Your task to perform on an android device: open app "Firefox Browser" (install if not already installed), go to login, and select forgot password Image 0: 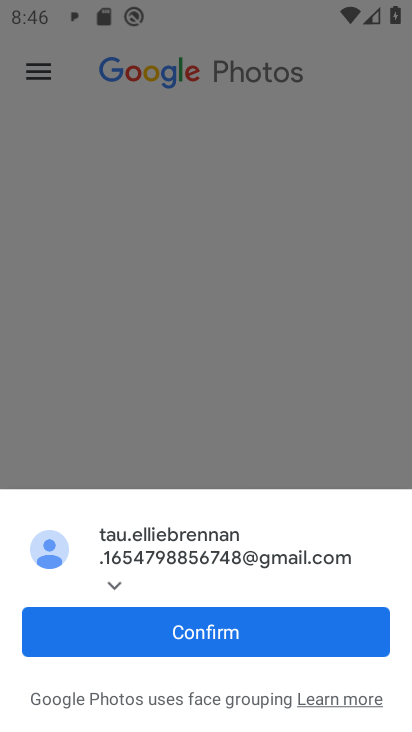
Step 0: press home button
Your task to perform on an android device: open app "Firefox Browser" (install if not already installed), go to login, and select forgot password Image 1: 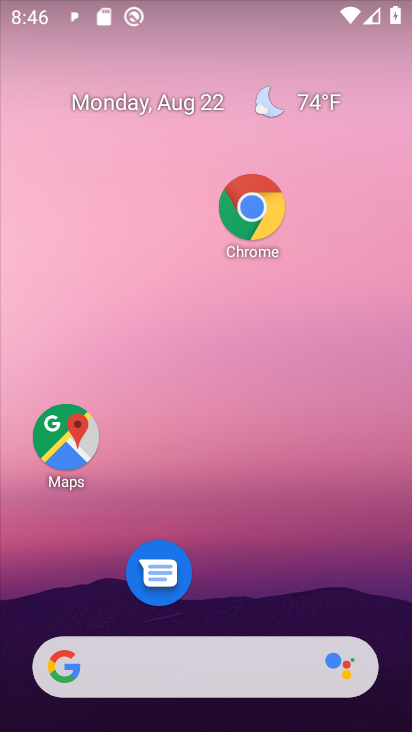
Step 1: drag from (248, 575) to (244, 13)
Your task to perform on an android device: open app "Firefox Browser" (install if not already installed), go to login, and select forgot password Image 2: 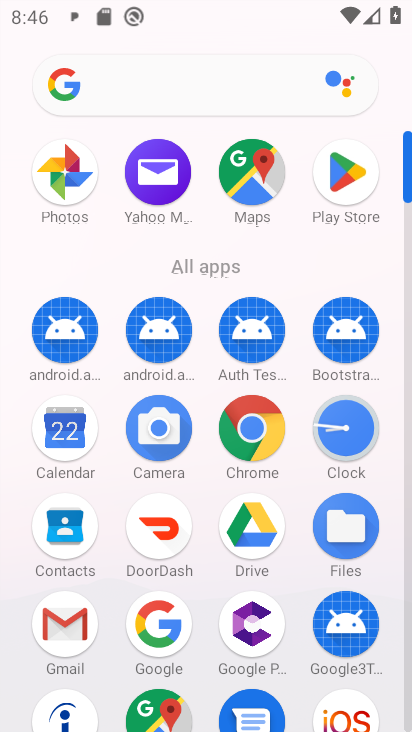
Step 2: click (344, 208)
Your task to perform on an android device: open app "Firefox Browser" (install if not already installed), go to login, and select forgot password Image 3: 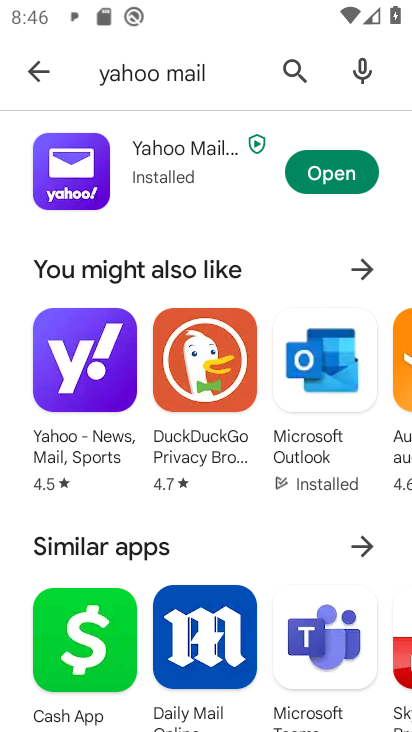
Step 3: click (178, 73)
Your task to perform on an android device: open app "Firefox Browser" (install if not already installed), go to login, and select forgot password Image 4: 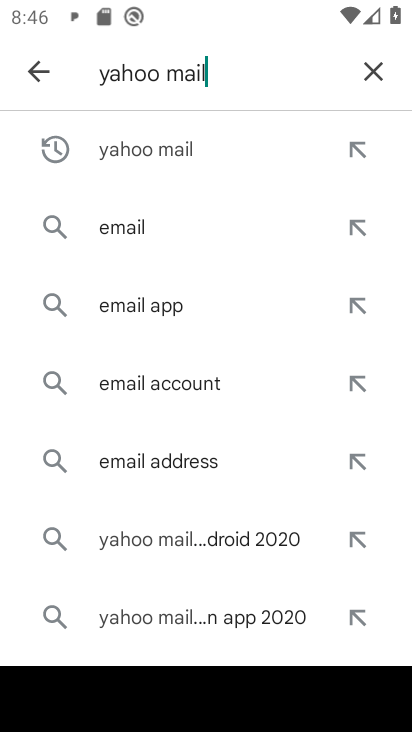
Step 4: click (373, 71)
Your task to perform on an android device: open app "Firefox Browser" (install if not already installed), go to login, and select forgot password Image 5: 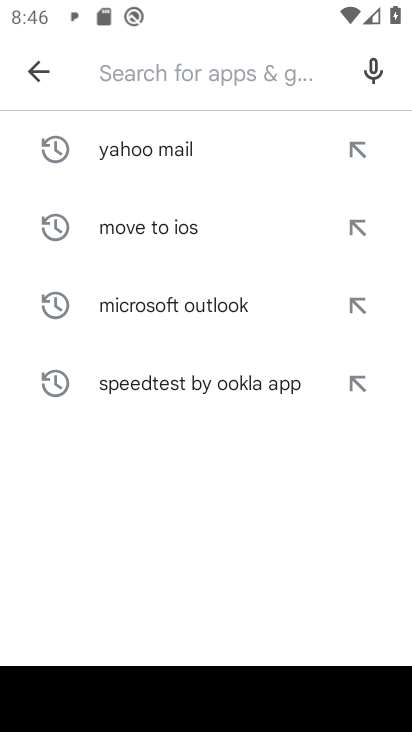
Step 5: type "firefox browser"
Your task to perform on an android device: open app "Firefox Browser" (install if not already installed), go to login, and select forgot password Image 6: 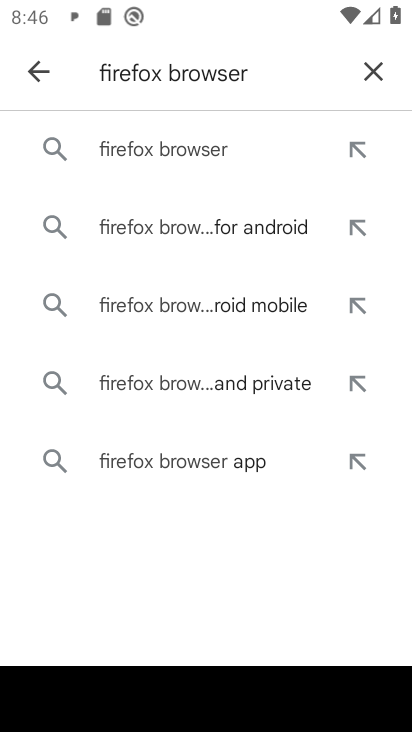
Step 6: click (163, 156)
Your task to perform on an android device: open app "Firefox Browser" (install if not already installed), go to login, and select forgot password Image 7: 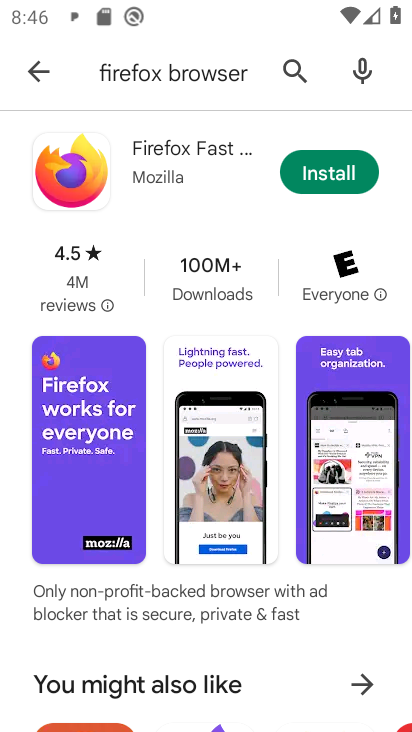
Step 7: click (344, 174)
Your task to perform on an android device: open app "Firefox Browser" (install if not already installed), go to login, and select forgot password Image 8: 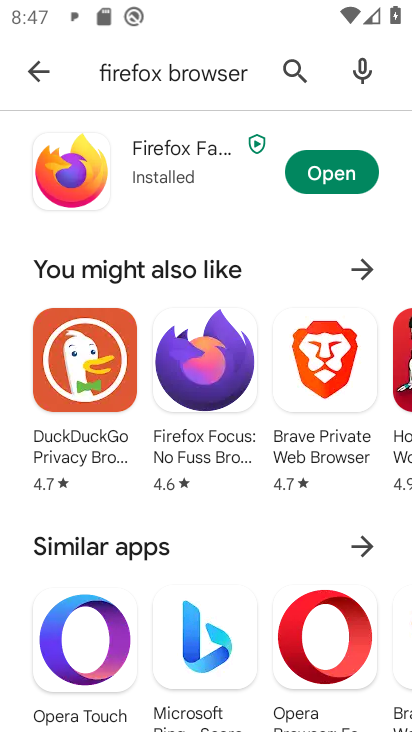
Step 8: click (323, 175)
Your task to perform on an android device: open app "Firefox Browser" (install if not already installed), go to login, and select forgot password Image 9: 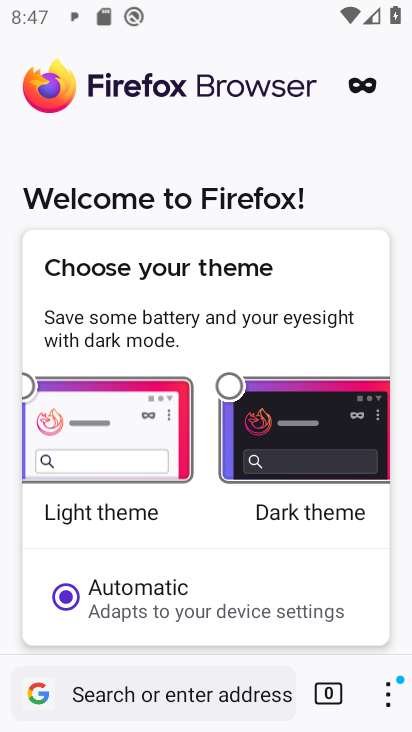
Step 9: drag from (177, 572) to (211, 116)
Your task to perform on an android device: open app "Firefox Browser" (install if not already installed), go to login, and select forgot password Image 10: 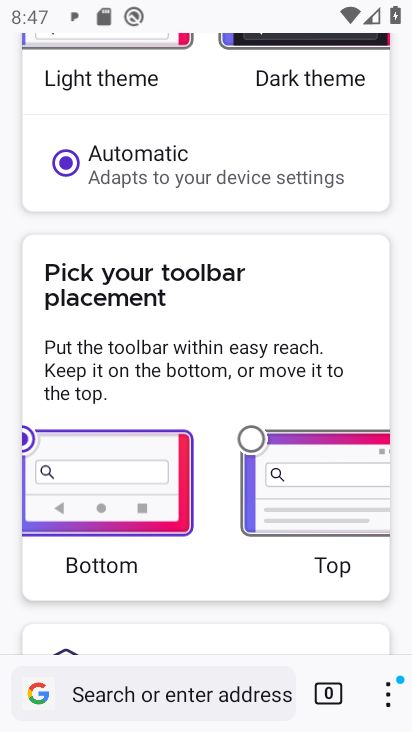
Step 10: drag from (191, 543) to (259, 66)
Your task to perform on an android device: open app "Firefox Browser" (install if not already installed), go to login, and select forgot password Image 11: 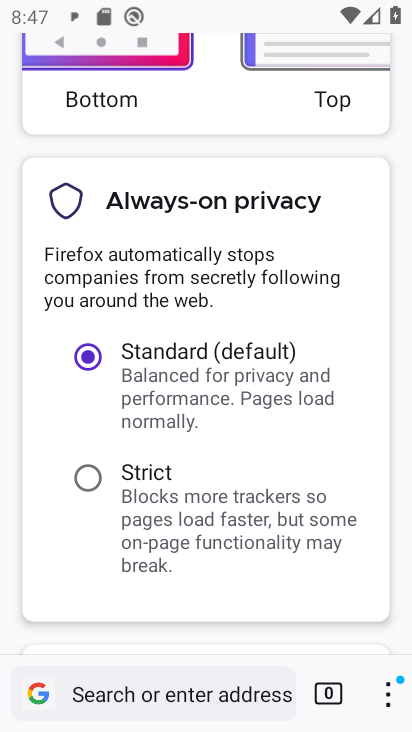
Step 11: drag from (184, 550) to (230, 170)
Your task to perform on an android device: open app "Firefox Browser" (install if not already installed), go to login, and select forgot password Image 12: 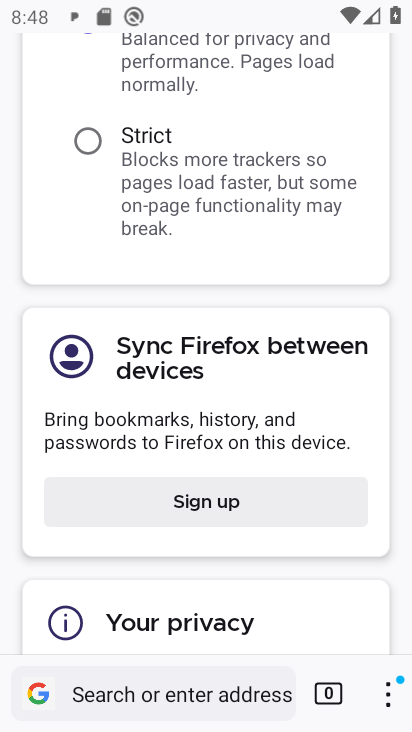
Step 12: click (185, 506)
Your task to perform on an android device: open app "Firefox Browser" (install if not already installed), go to login, and select forgot password Image 13: 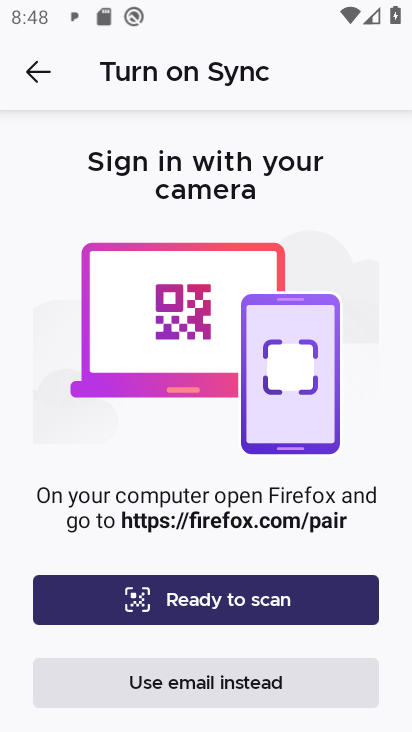
Step 13: click (208, 687)
Your task to perform on an android device: open app "Firefox Browser" (install if not already installed), go to login, and select forgot password Image 14: 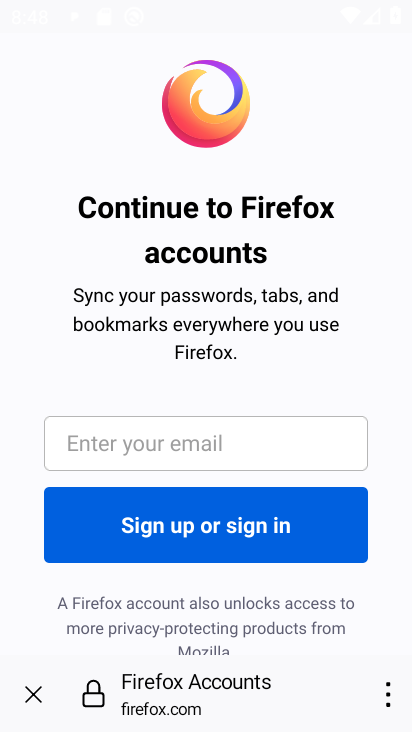
Step 14: task complete